Your task to perform on an android device: Open the stopwatch Image 0: 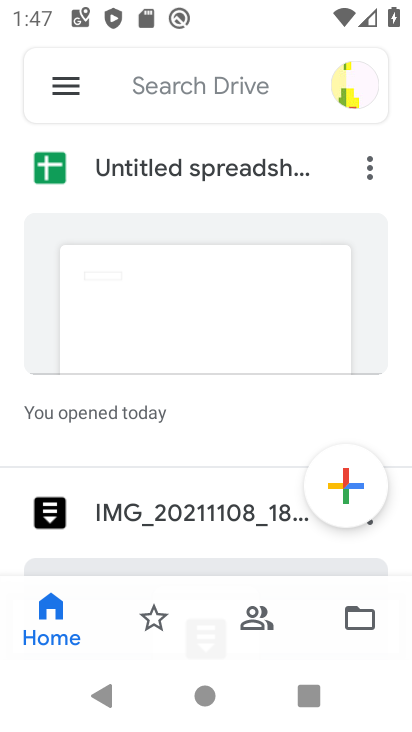
Step 0: press home button
Your task to perform on an android device: Open the stopwatch Image 1: 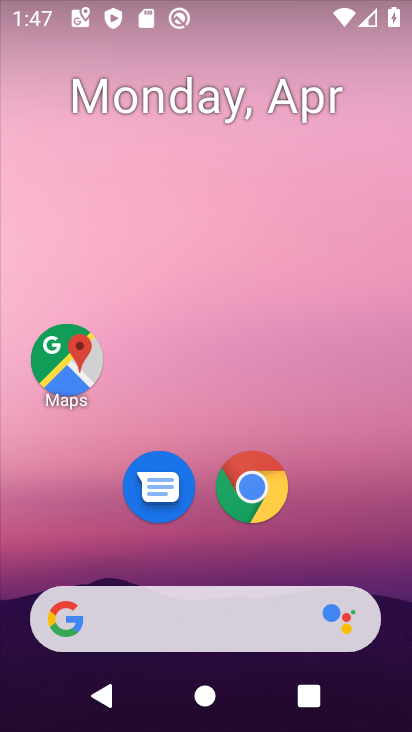
Step 1: drag from (240, 641) to (206, 139)
Your task to perform on an android device: Open the stopwatch Image 2: 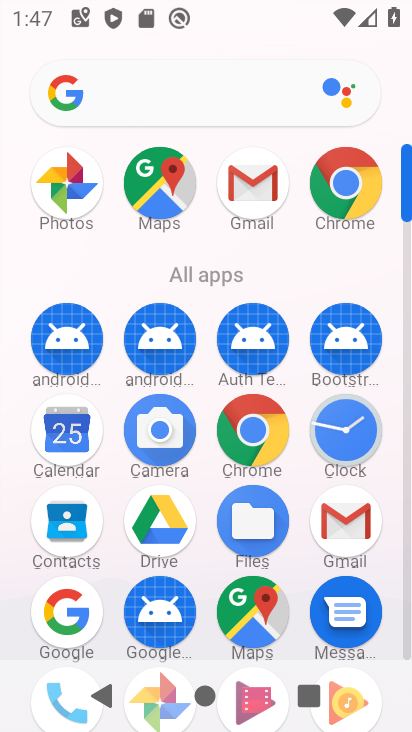
Step 2: click (342, 435)
Your task to perform on an android device: Open the stopwatch Image 3: 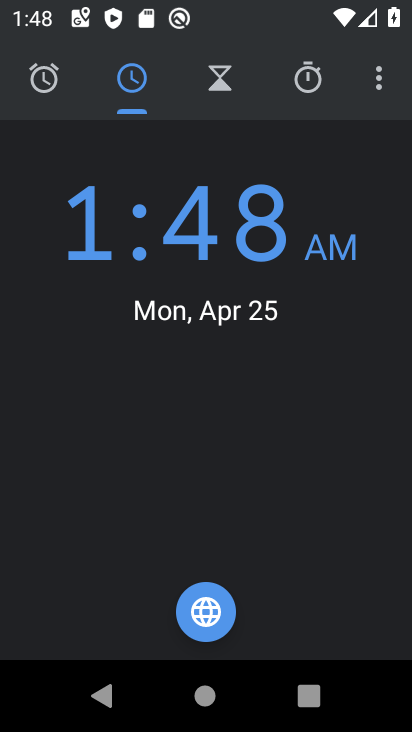
Step 3: click (300, 103)
Your task to perform on an android device: Open the stopwatch Image 4: 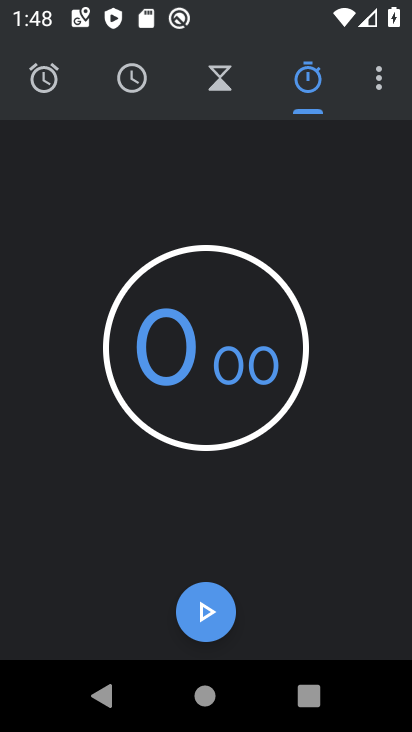
Step 4: click (224, 616)
Your task to perform on an android device: Open the stopwatch Image 5: 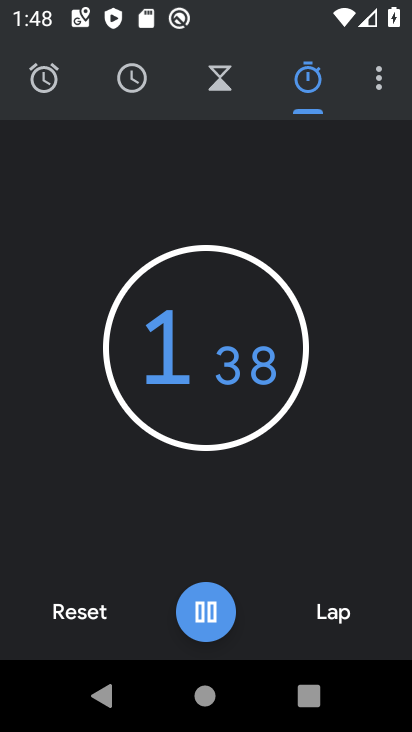
Step 5: click (218, 610)
Your task to perform on an android device: Open the stopwatch Image 6: 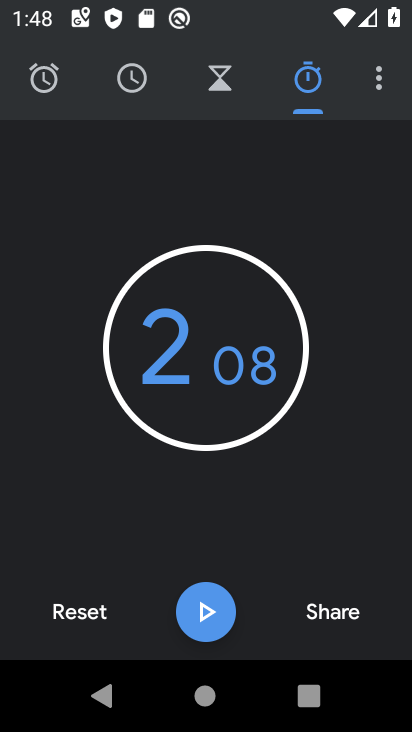
Step 6: task complete